Your task to perform on an android device: Open Amazon Image 0: 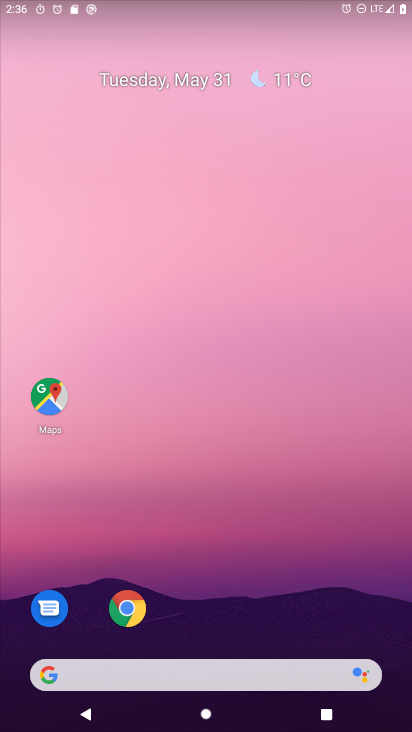
Step 0: click (129, 610)
Your task to perform on an android device: Open Amazon Image 1: 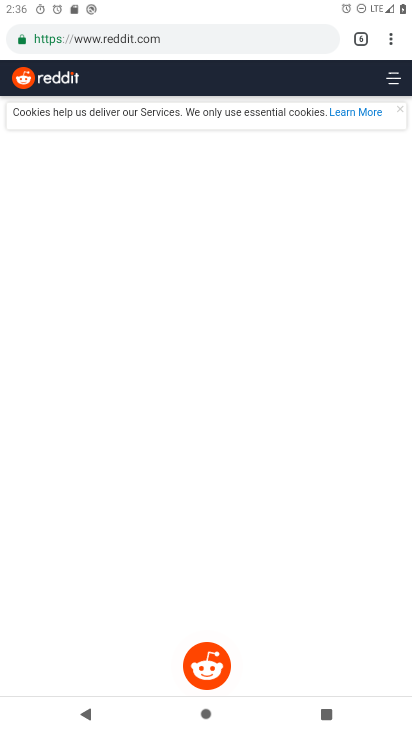
Step 1: click (81, 40)
Your task to perform on an android device: Open Amazon Image 2: 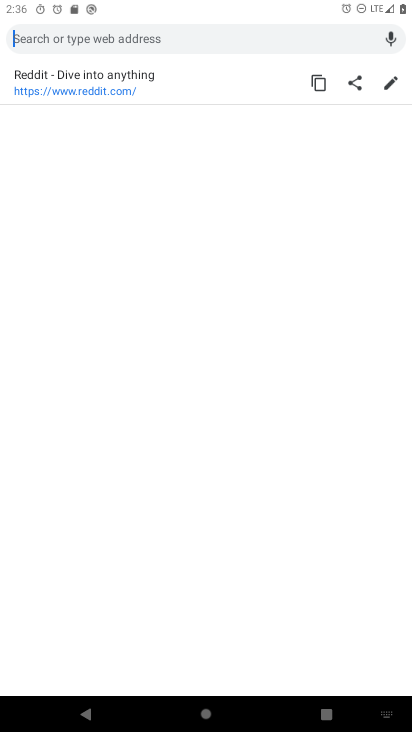
Step 2: type "amazon"
Your task to perform on an android device: Open Amazon Image 3: 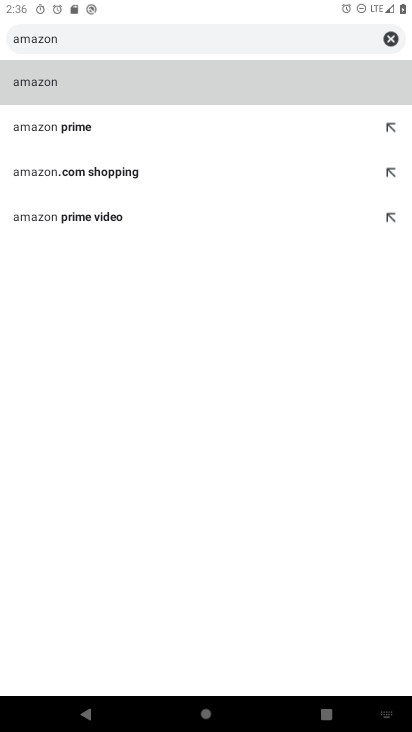
Step 3: click (29, 83)
Your task to perform on an android device: Open Amazon Image 4: 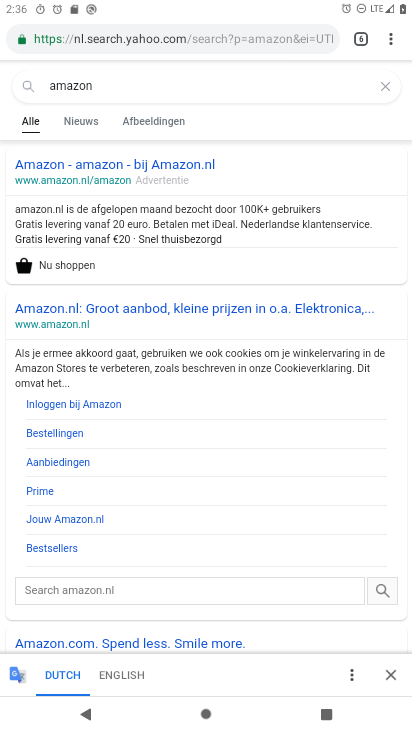
Step 4: click (26, 180)
Your task to perform on an android device: Open Amazon Image 5: 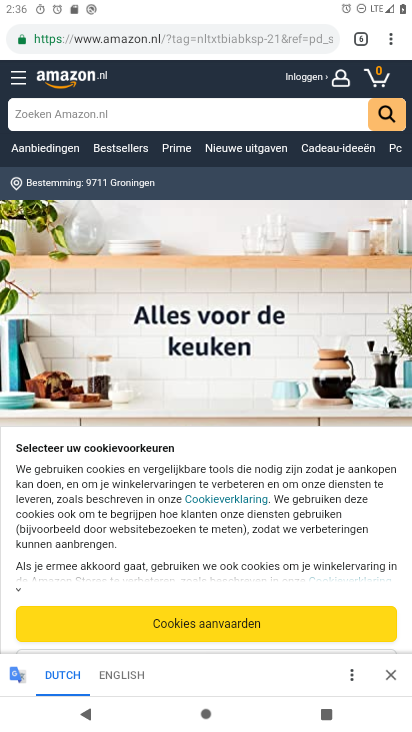
Step 5: click (394, 676)
Your task to perform on an android device: Open Amazon Image 6: 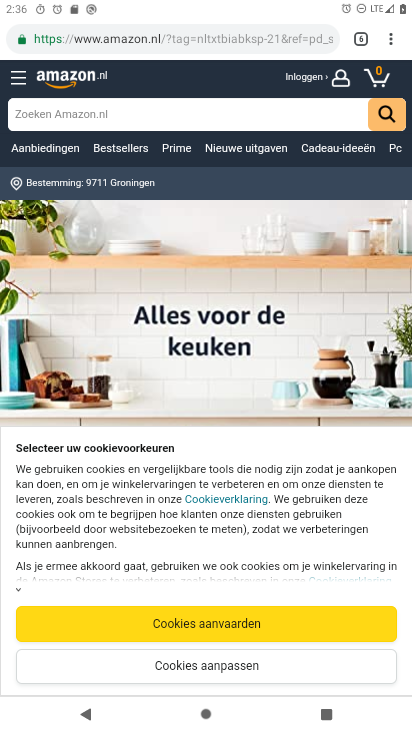
Step 6: task complete